Your task to perform on an android device: toggle priority inbox in the gmail app Image 0: 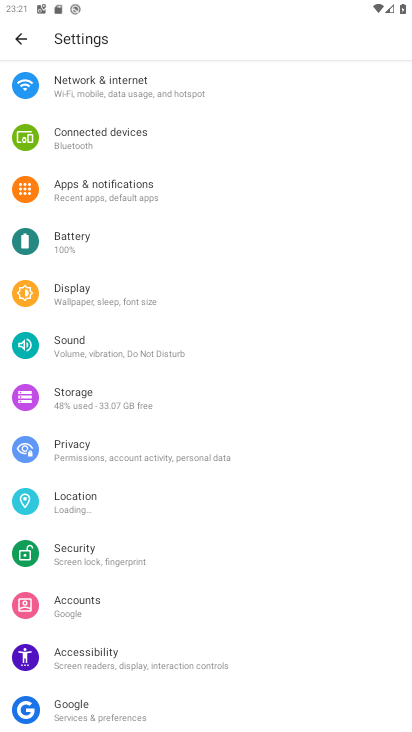
Step 0: press home button
Your task to perform on an android device: toggle priority inbox in the gmail app Image 1: 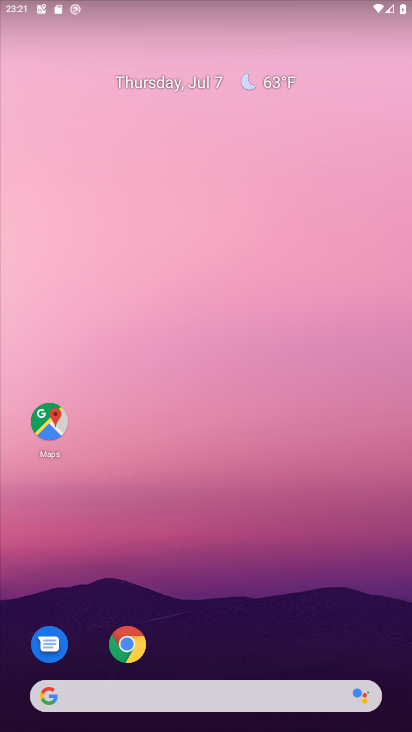
Step 1: drag from (217, 718) to (190, 144)
Your task to perform on an android device: toggle priority inbox in the gmail app Image 2: 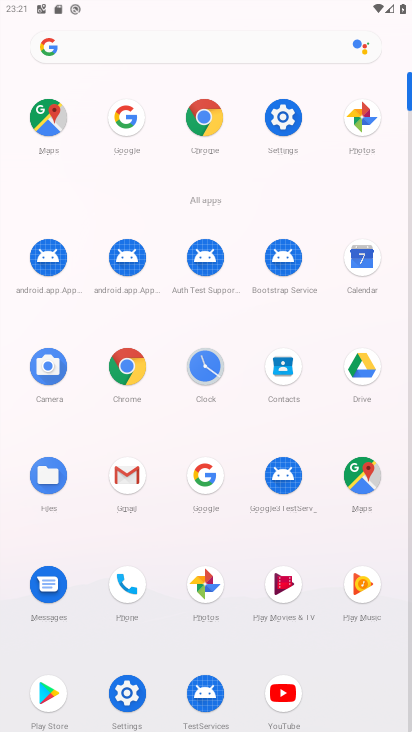
Step 2: click (124, 481)
Your task to perform on an android device: toggle priority inbox in the gmail app Image 3: 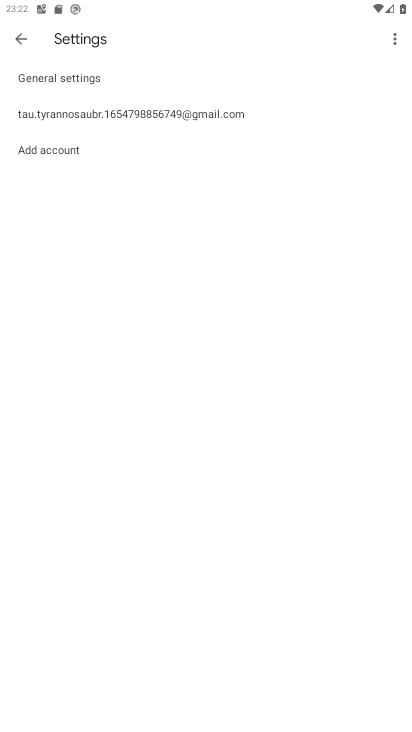
Step 3: click (67, 116)
Your task to perform on an android device: toggle priority inbox in the gmail app Image 4: 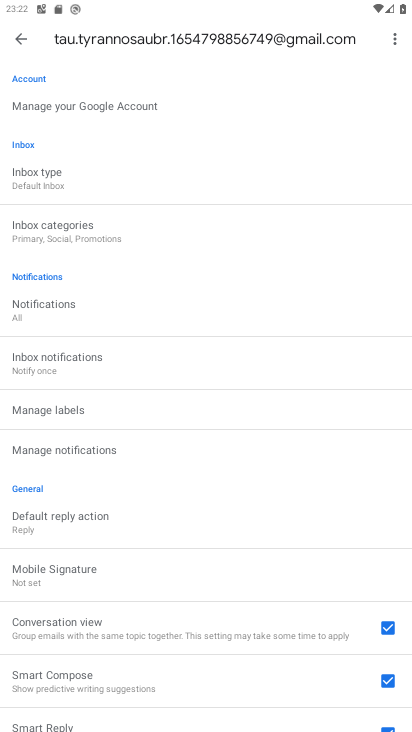
Step 4: click (47, 182)
Your task to perform on an android device: toggle priority inbox in the gmail app Image 5: 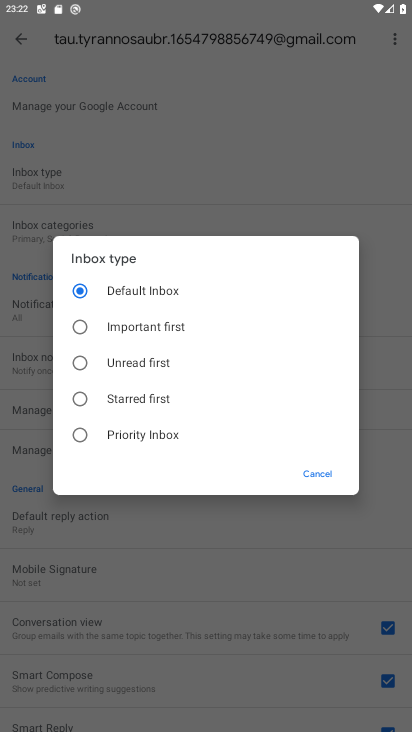
Step 5: click (79, 437)
Your task to perform on an android device: toggle priority inbox in the gmail app Image 6: 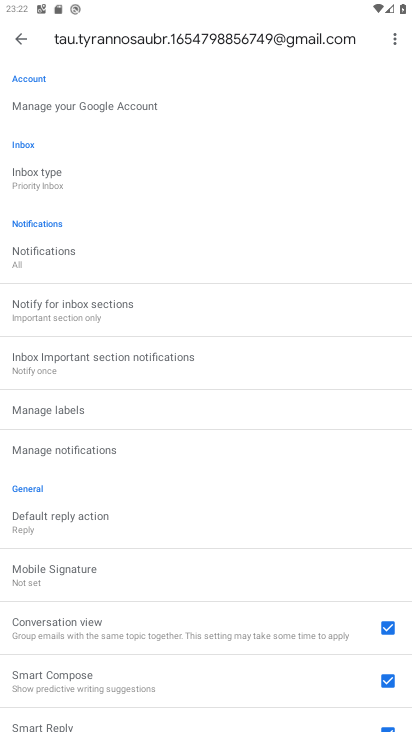
Step 6: task complete